Your task to perform on an android device: search for starred emails in the gmail app Image 0: 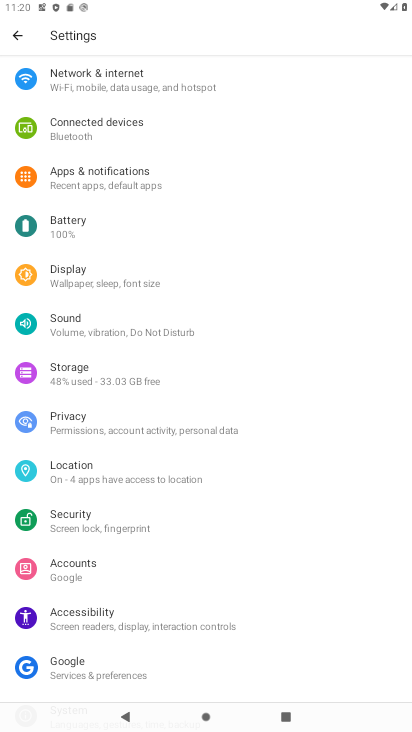
Step 0: press home button
Your task to perform on an android device: search for starred emails in the gmail app Image 1: 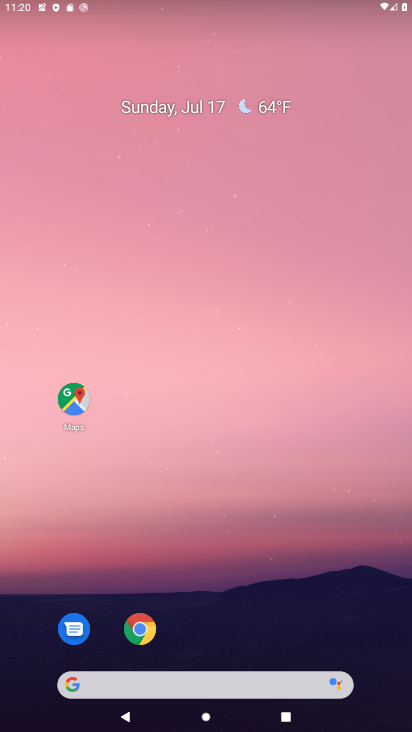
Step 1: drag from (230, 622) to (252, 171)
Your task to perform on an android device: search for starred emails in the gmail app Image 2: 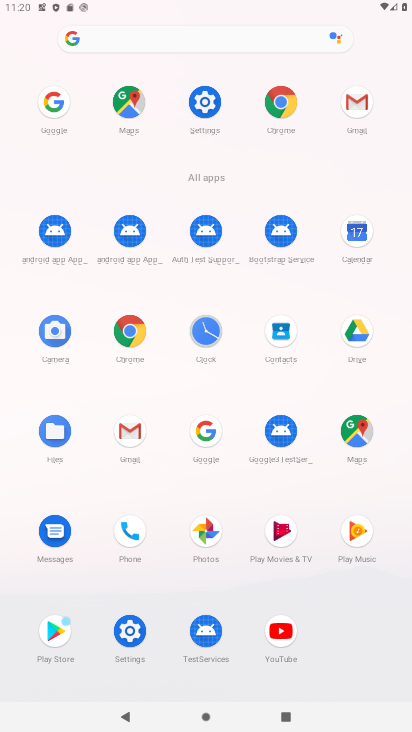
Step 2: click (365, 105)
Your task to perform on an android device: search for starred emails in the gmail app Image 3: 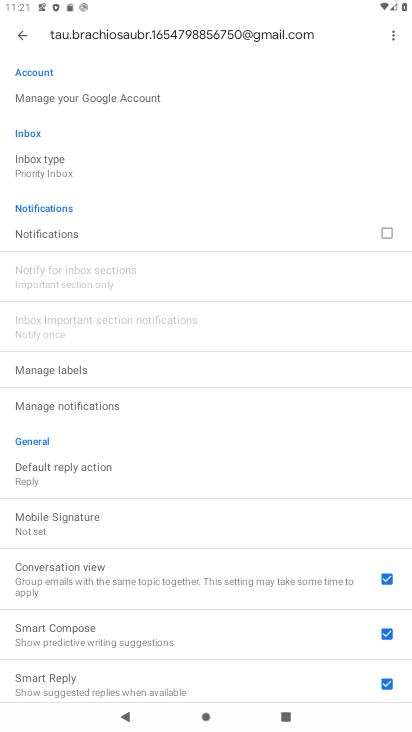
Step 3: click (25, 25)
Your task to perform on an android device: search for starred emails in the gmail app Image 4: 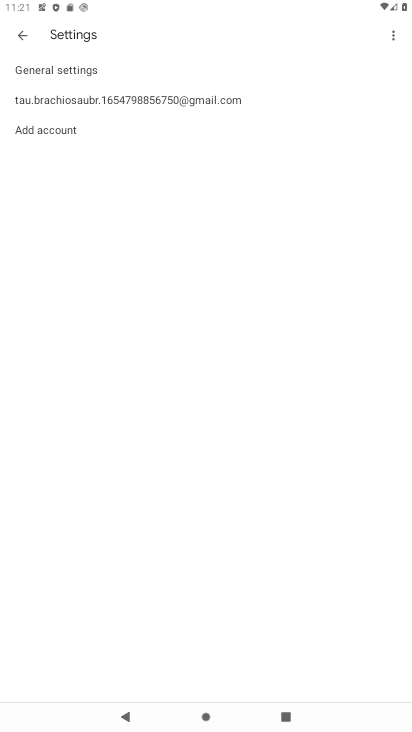
Step 4: click (20, 29)
Your task to perform on an android device: search for starred emails in the gmail app Image 5: 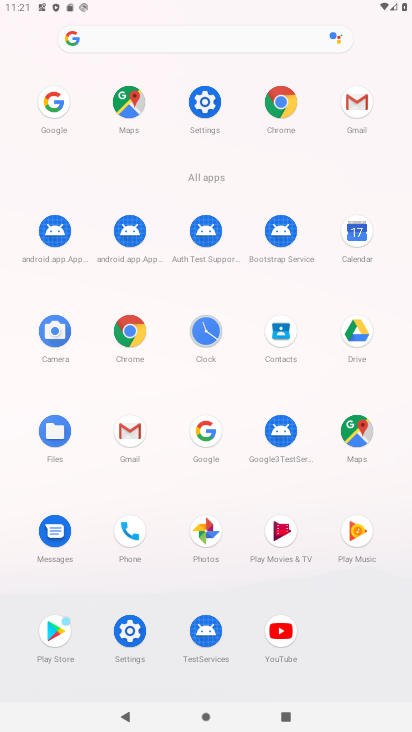
Step 5: click (359, 110)
Your task to perform on an android device: search for starred emails in the gmail app Image 6: 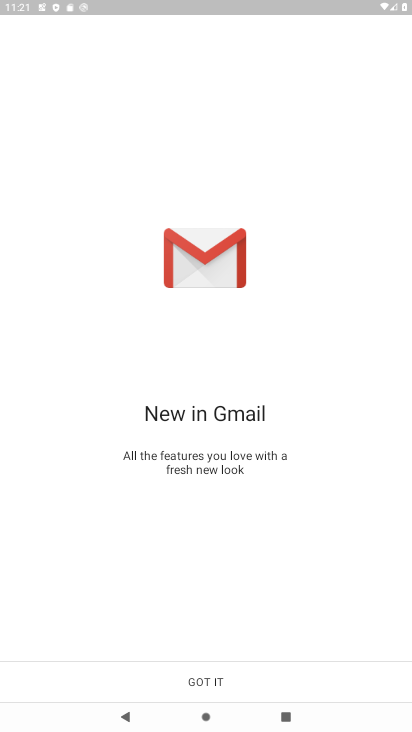
Step 6: click (217, 676)
Your task to perform on an android device: search for starred emails in the gmail app Image 7: 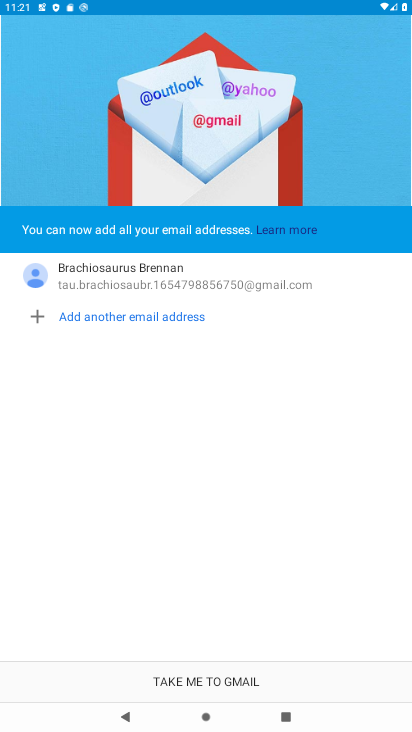
Step 7: click (217, 673)
Your task to perform on an android device: search for starred emails in the gmail app Image 8: 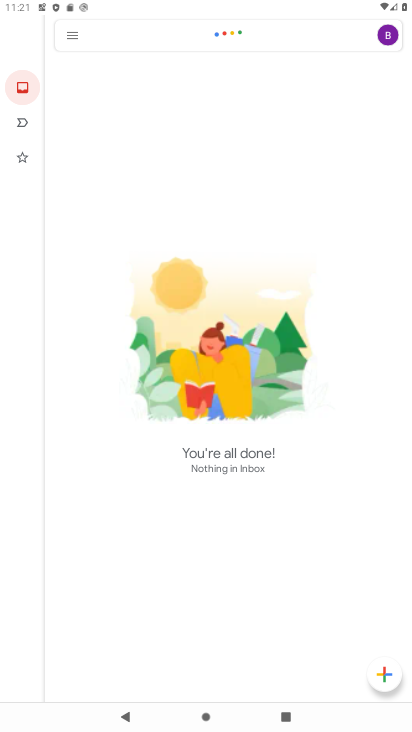
Step 8: click (76, 35)
Your task to perform on an android device: search for starred emails in the gmail app Image 9: 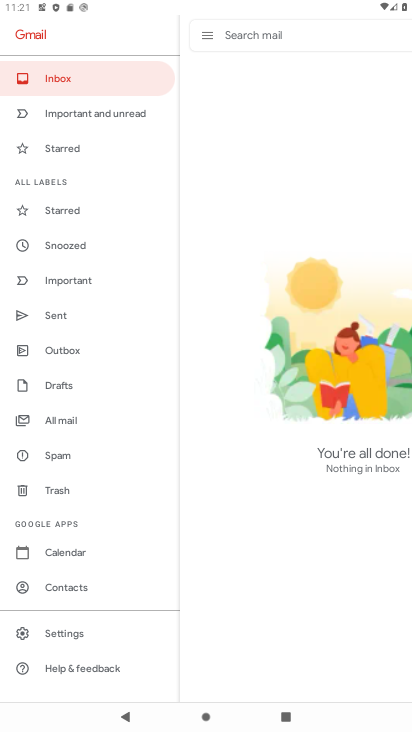
Step 9: click (69, 212)
Your task to perform on an android device: search for starred emails in the gmail app Image 10: 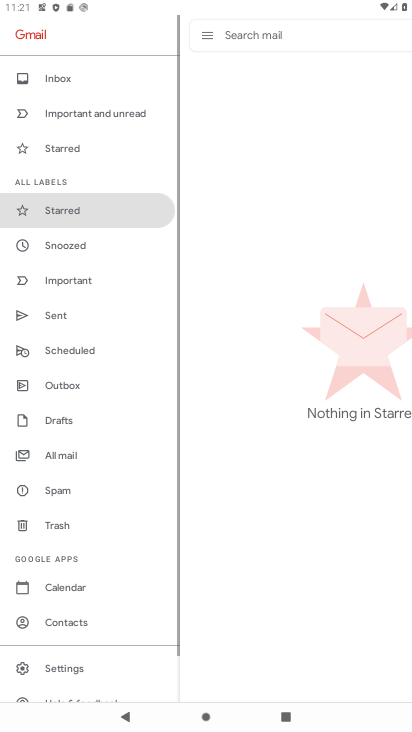
Step 10: click (69, 212)
Your task to perform on an android device: search for starred emails in the gmail app Image 11: 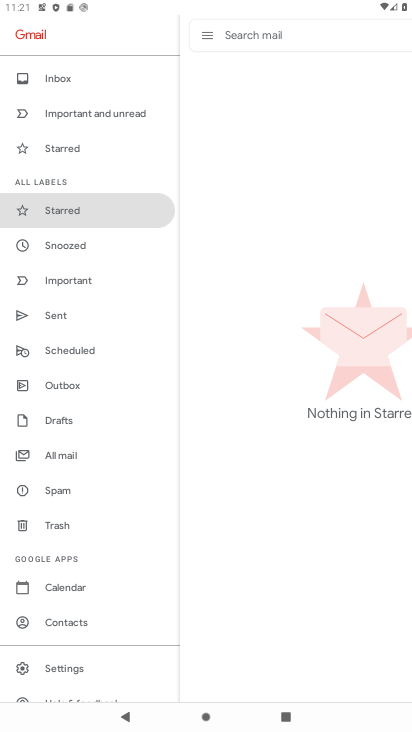
Step 11: click (117, 208)
Your task to perform on an android device: search for starred emails in the gmail app Image 12: 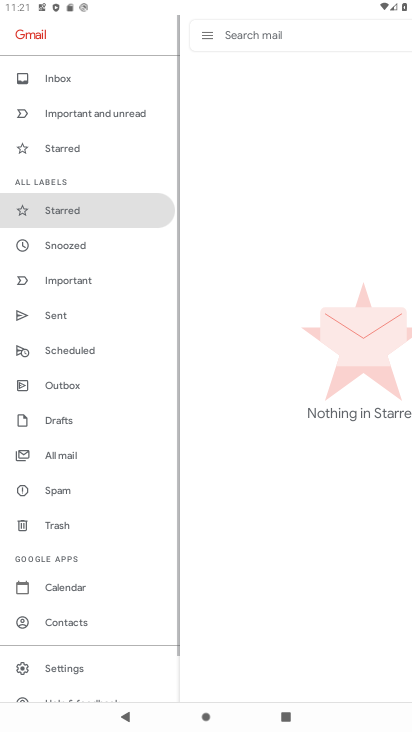
Step 12: task complete